Your task to perform on an android device: What's the US dollar exchange rate against the Brazilian Real? Image 0: 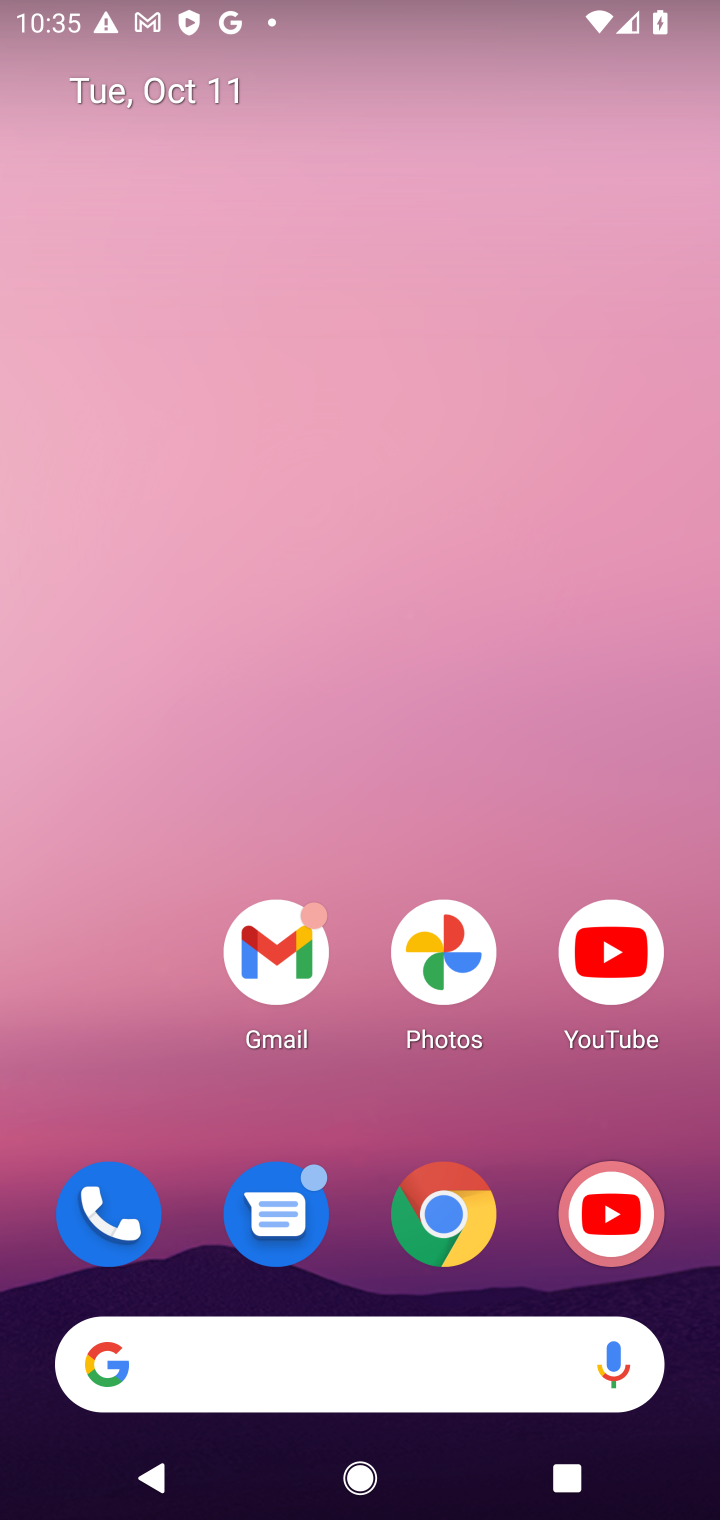
Step 0: drag from (351, 1081) to (21, 486)
Your task to perform on an android device: What's the US dollar exchange rate against the Brazilian Real? Image 1: 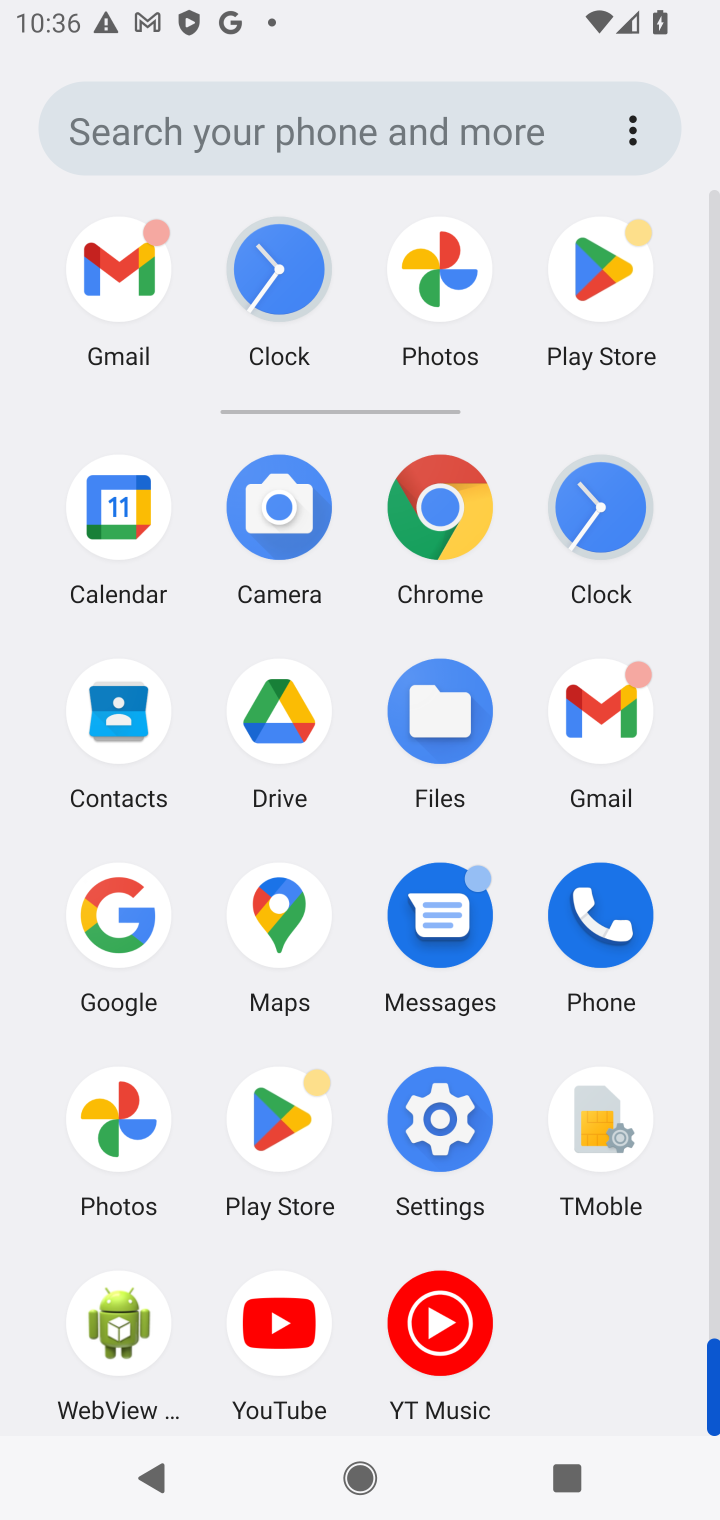
Step 1: click (434, 507)
Your task to perform on an android device: What's the US dollar exchange rate against the Brazilian Real? Image 2: 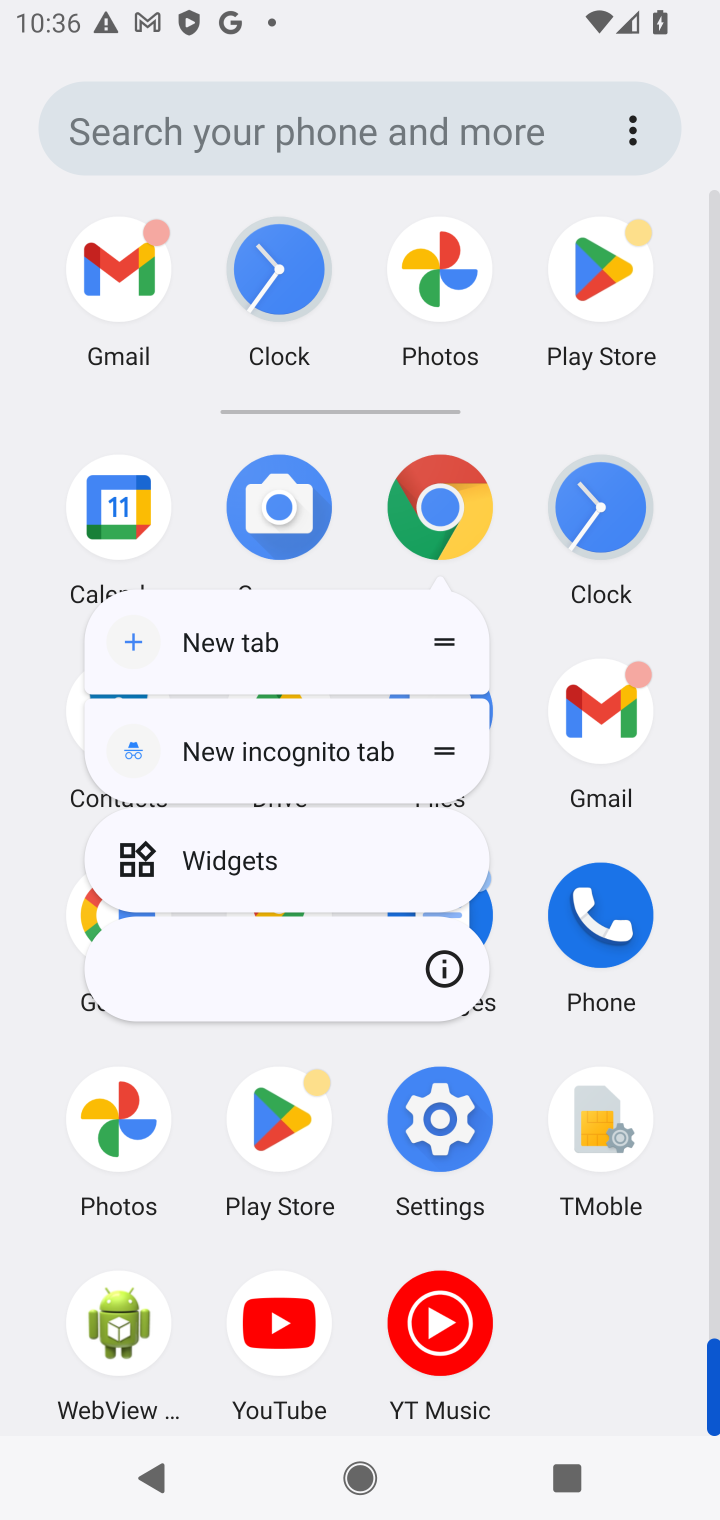
Step 2: click (486, 482)
Your task to perform on an android device: What's the US dollar exchange rate against the Brazilian Real? Image 3: 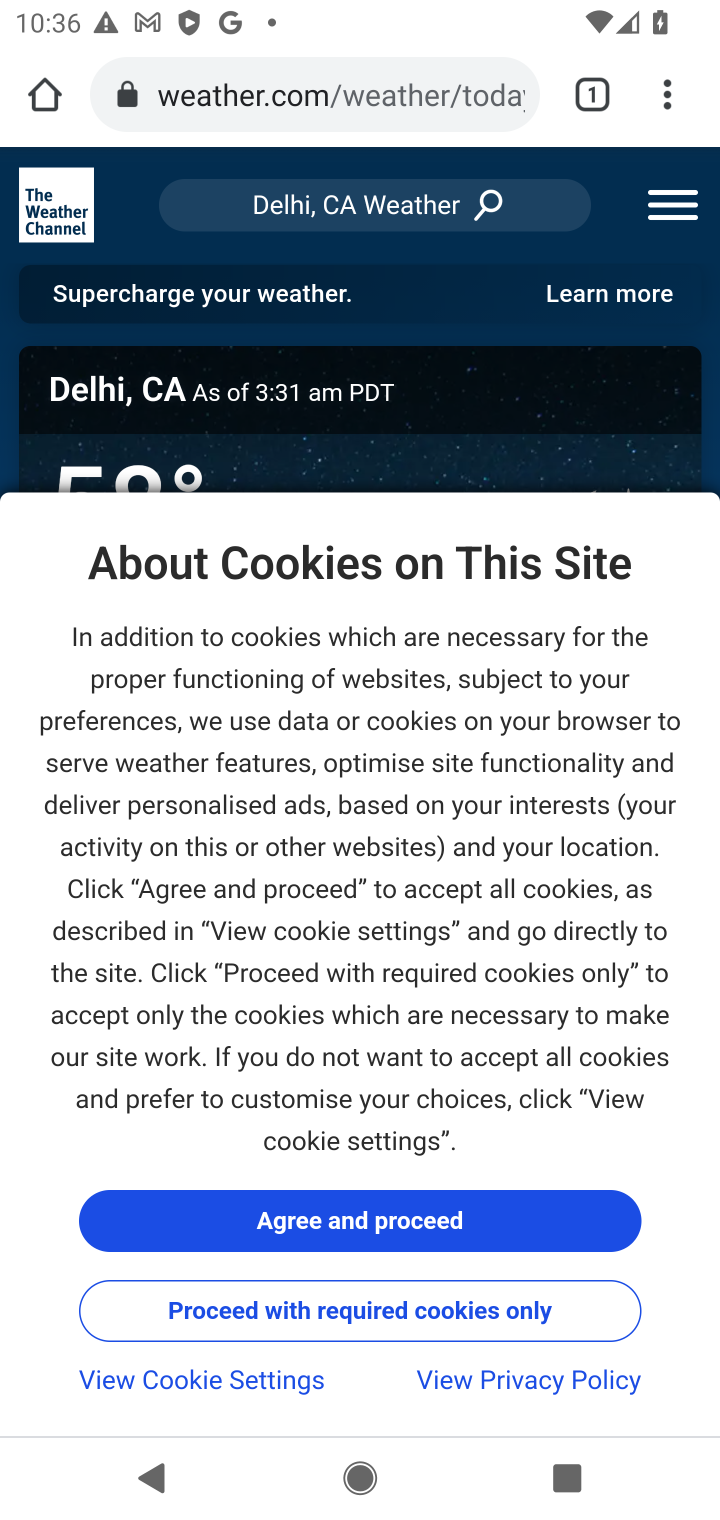
Step 3: click (211, 84)
Your task to perform on an android device: What's the US dollar exchange rate against the Brazilian Real? Image 4: 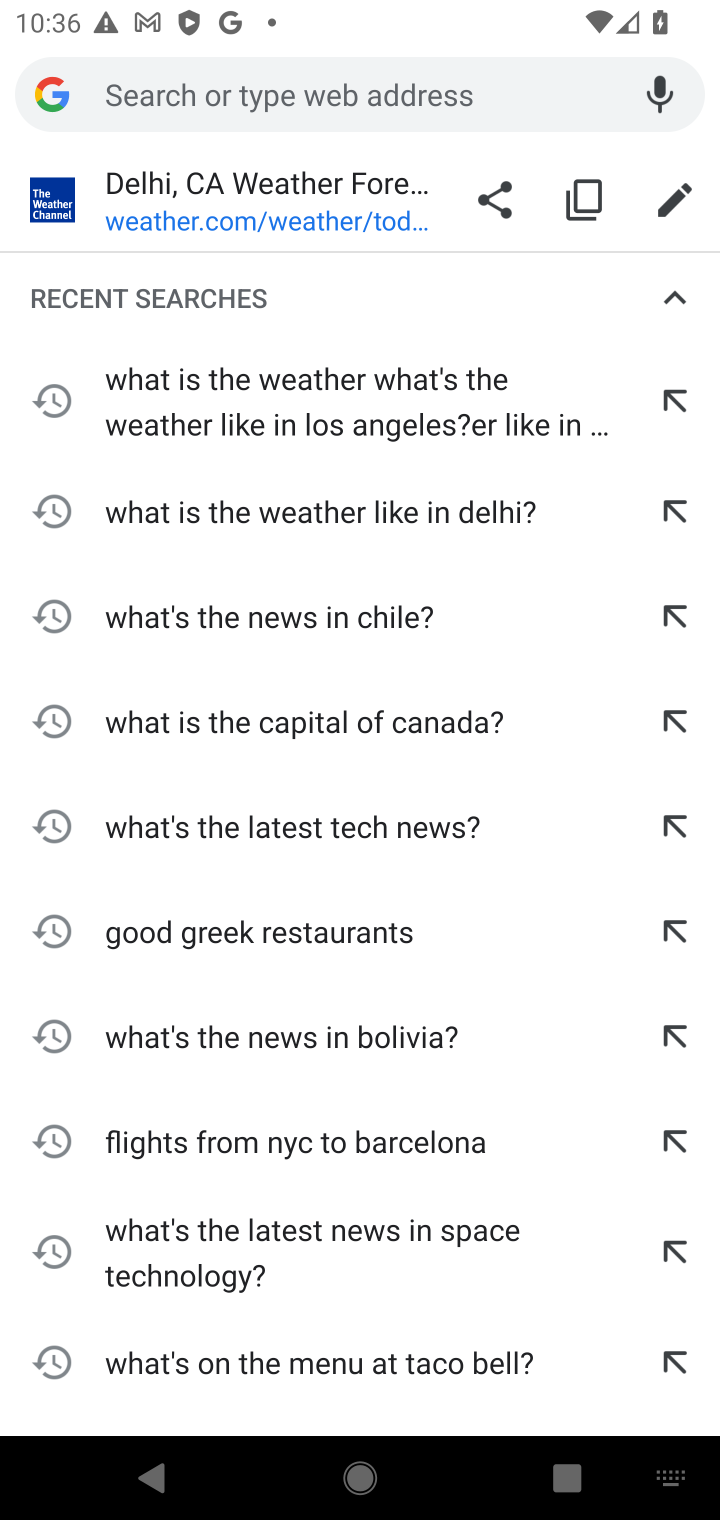
Step 4: type "What's the US dollar exchange rate against the "
Your task to perform on an android device: What's the US dollar exchange rate against the Brazilian Real? Image 5: 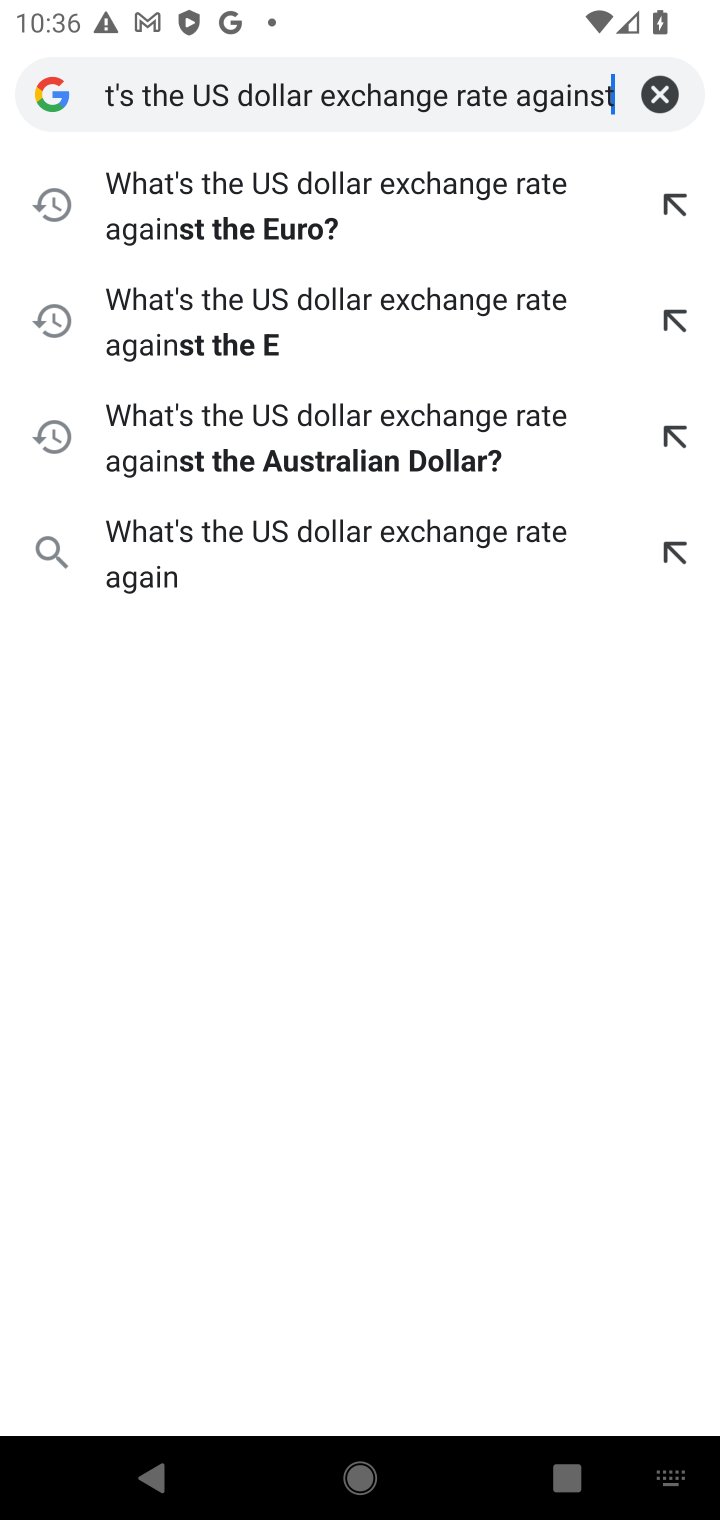
Step 5: type "Brazilian Real ?"
Your task to perform on an android device: What's the US dollar exchange rate against the Brazilian Real? Image 6: 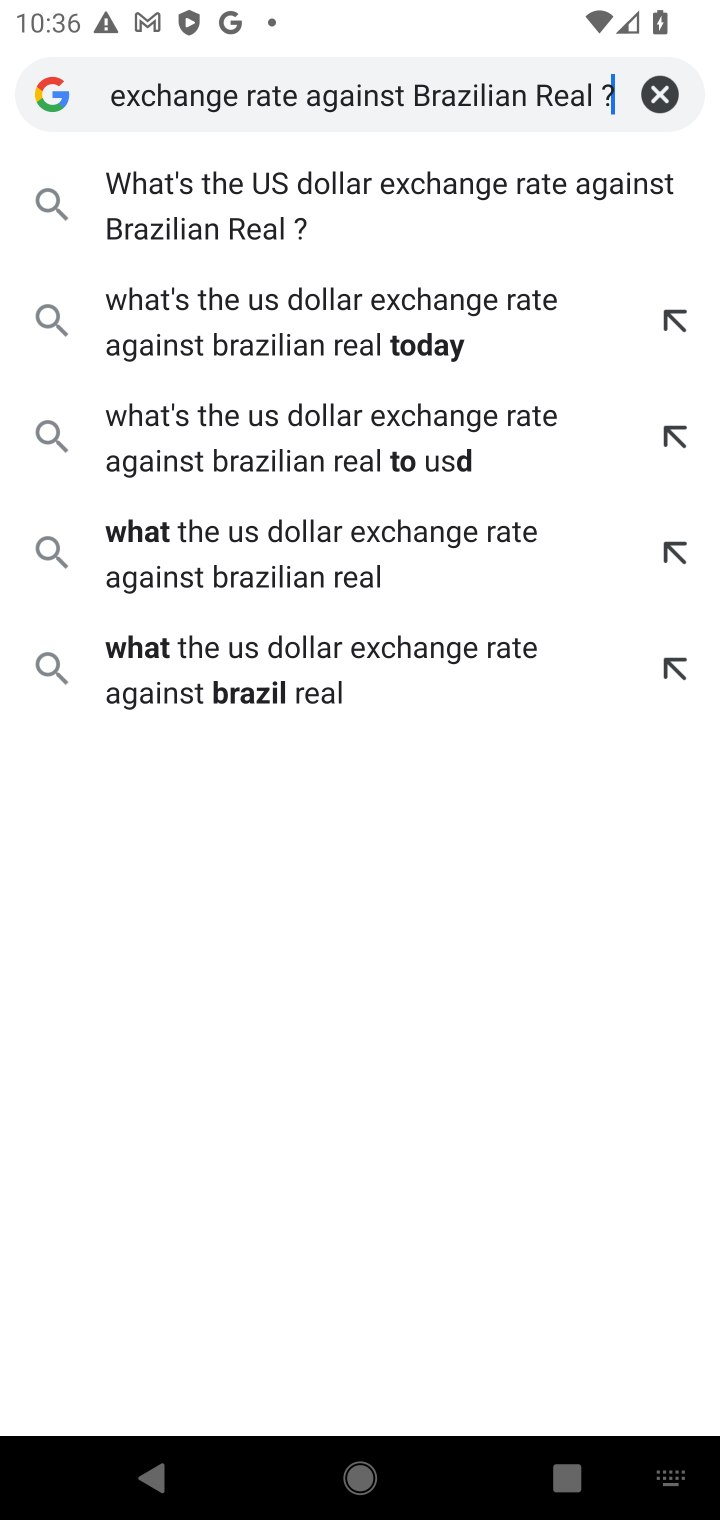
Step 6: press enter
Your task to perform on an android device: What's the US dollar exchange rate against the Brazilian Real? Image 7: 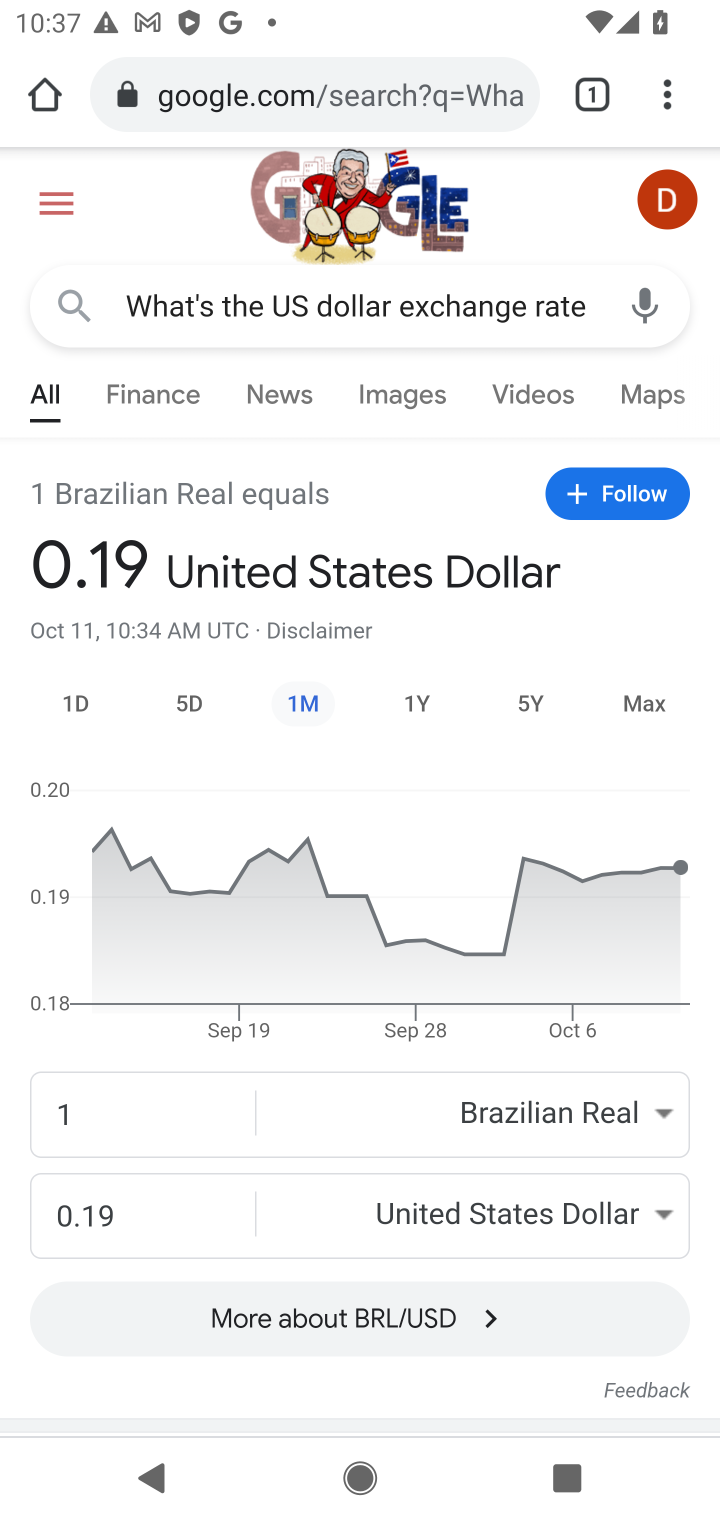
Step 7: task complete